Your task to perform on an android device: Open sound settings Image 0: 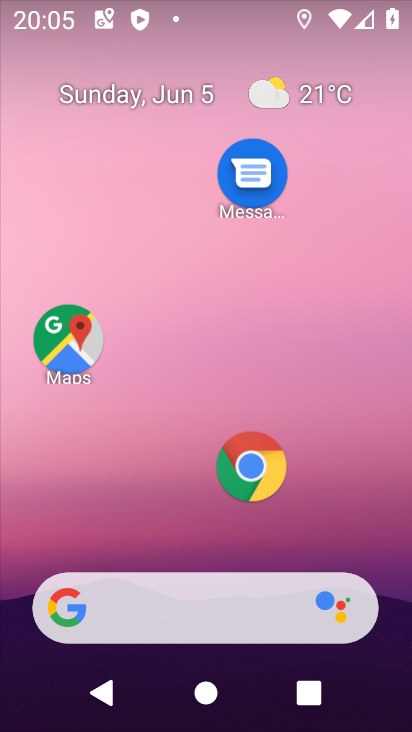
Step 0: drag from (177, 553) to (266, 35)
Your task to perform on an android device: Open sound settings Image 1: 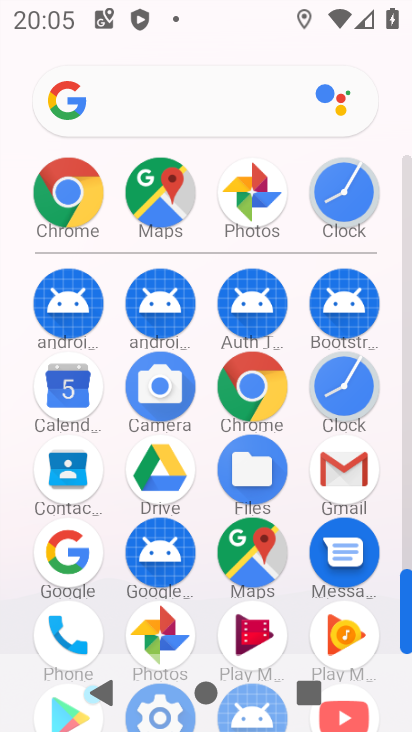
Step 1: drag from (198, 593) to (232, 116)
Your task to perform on an android device: Open sound settings Image 2: 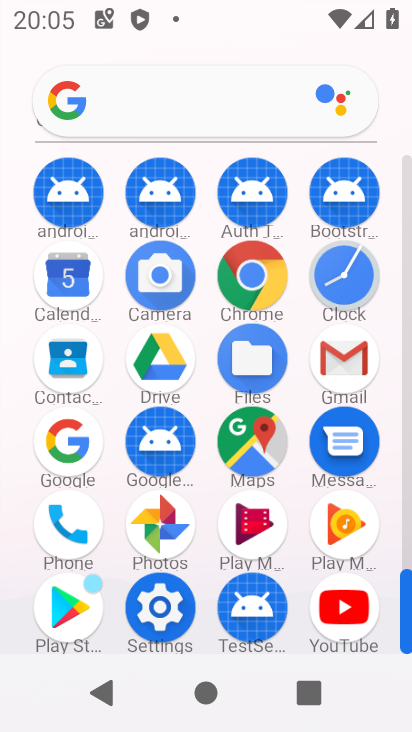
Step 2: click (154, 616)
Your task to perform on an android device: Open sound settings Image 3: 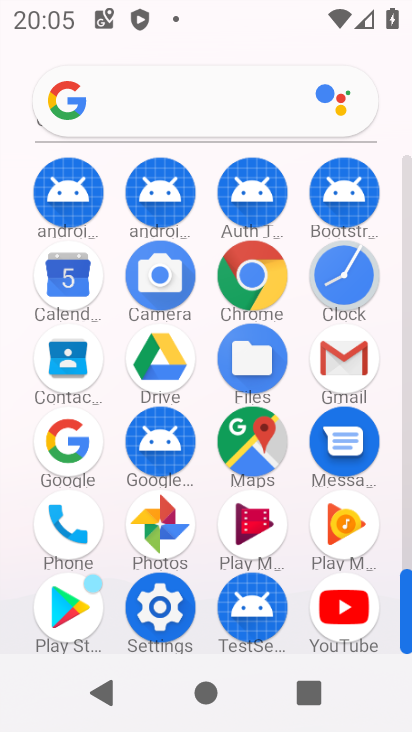
Step 3: click (153, 616)
Your task to perform on an android device: Open sound settings Image 4: 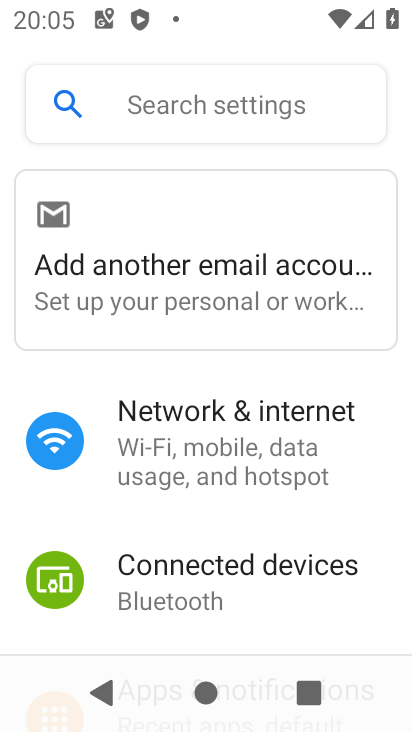
Step 4: drag from (245, 640) to (379, 193)
Your task to perform on an android device: Open sound settings Image 5: 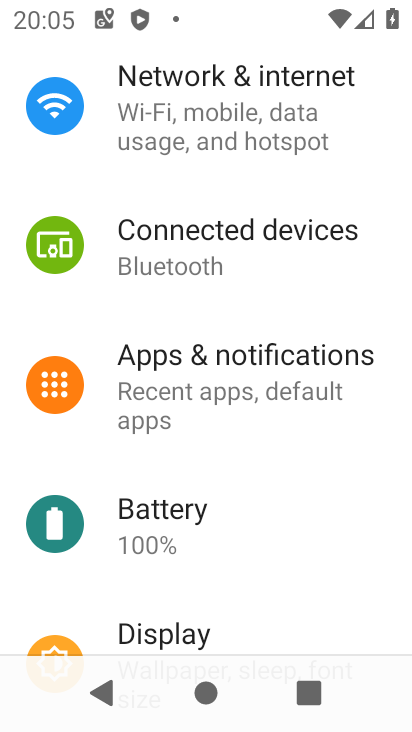
Step 5: drag from (293, 609) to (342, 34)
Your task to perform on an android device: Open sound settings Image 6: 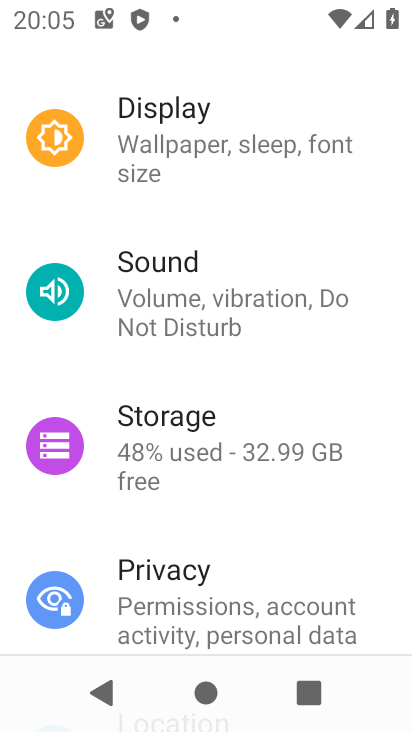
Step 6: drag from (205, 299) to (217, 348)
Your task to perform on an android device: Open sound settings Image 7: 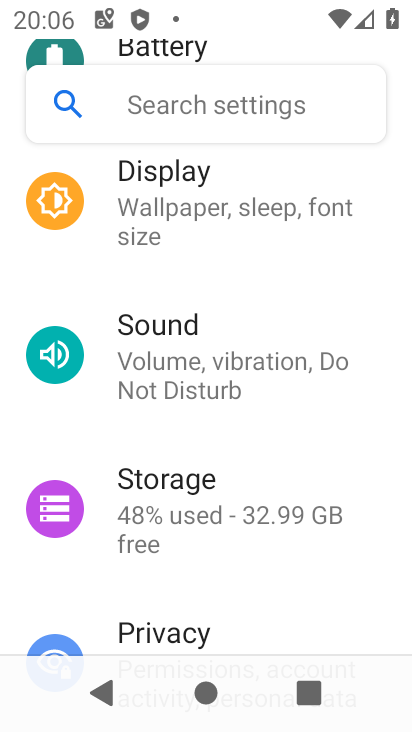
Step 7: click (154, 365)
Your task to perform on an android device: Open sound settings Image 8: 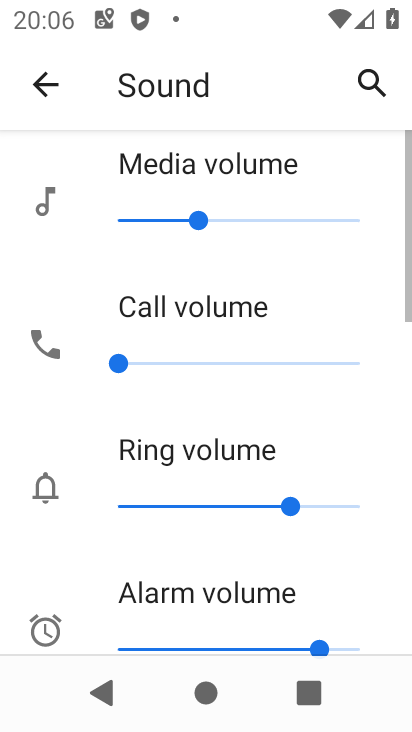
Step 8: task complete